Your task to perform on an android device: toggle translation in the chrome app Image 0: 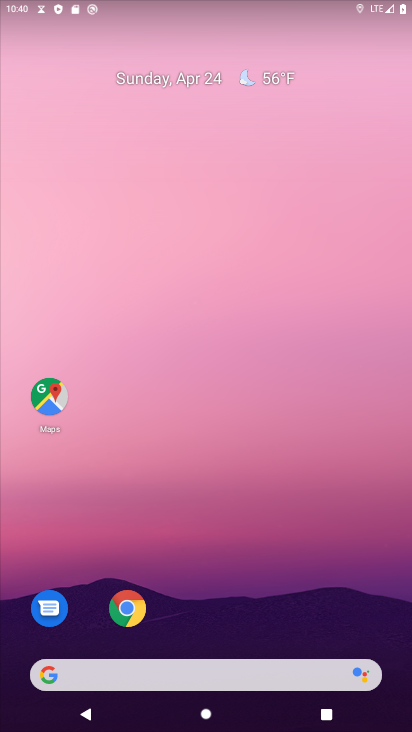
Step 0: drag from (189, 645) to (186, 10)
Your task to perform on an android device: toggle translation in the chrome app Image 1: 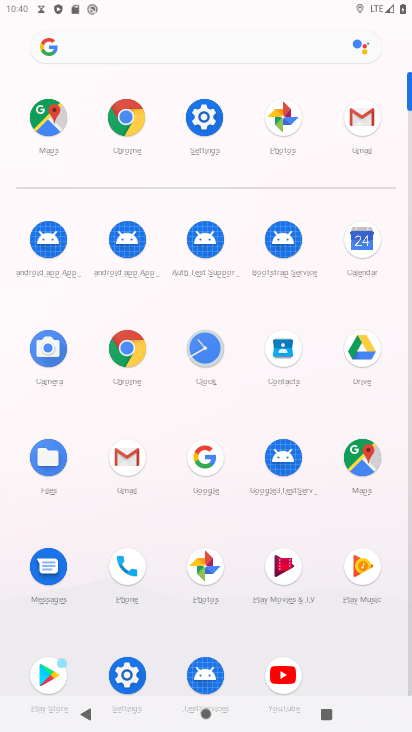
Step 1: click (129, 123)
Your task to perform on an android device: toggle translation in the chrome app Image 2: 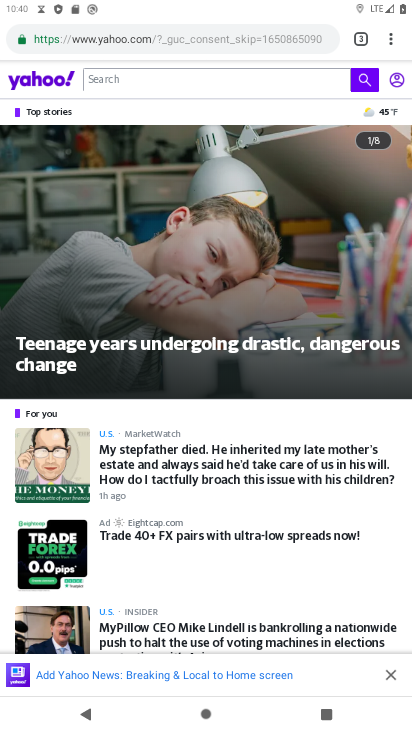
Step 2: drag from (395, 35) to (268, 512)
Your task to perform on an android device: toggle translation in the chrome app Image 3: 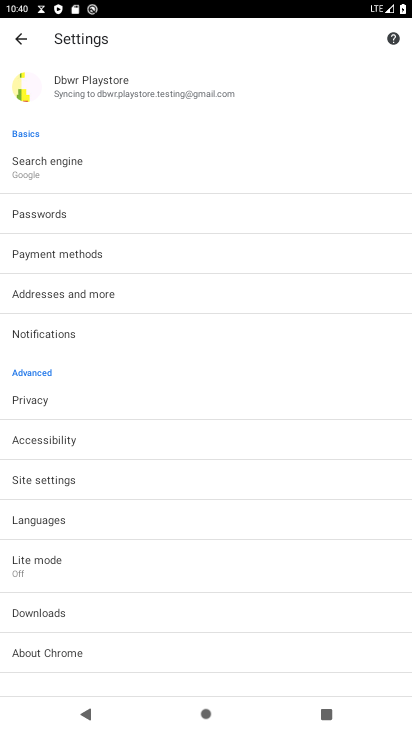
Step 3: click (58, 525)
Your task to perform on an android device: toggle translation in the chrome app Image 4: 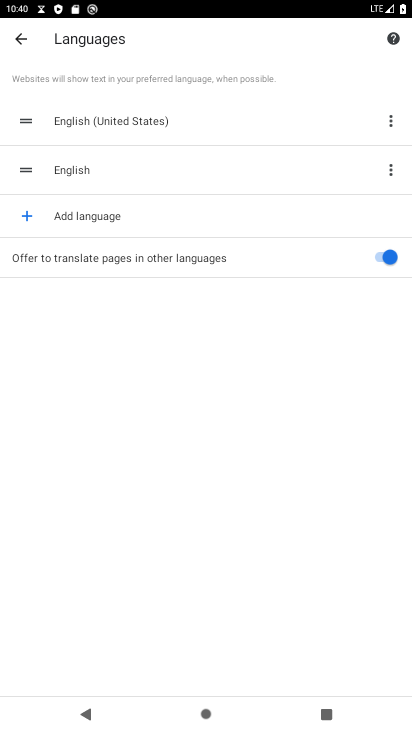
Step 4: click (379, 258)
Your task to perform on an android device: toggle translation in the chrome app Image 5: 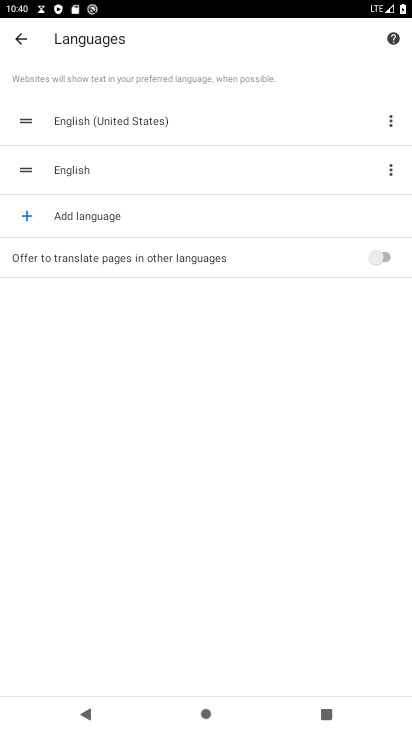
Step 5: task complete